Your task to perform on an android device: What's the weather today? Image 0: 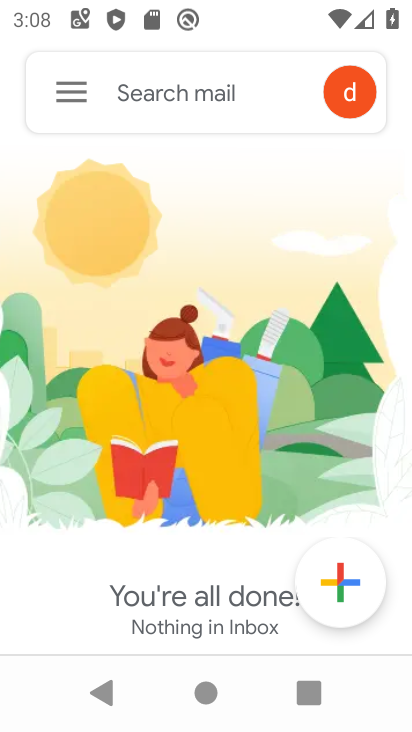
Step 0: press home button
Your task to perform on an android device: What's the weather today? Image 1: 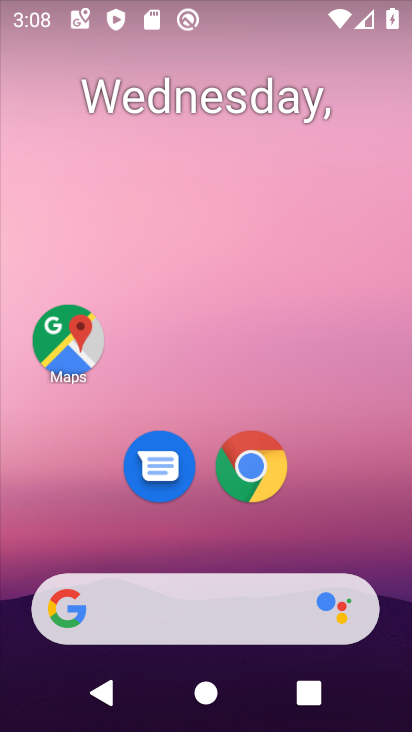
Step 1: click (215, 601)
Your task to perform on an android device: What's the weather today? Image 2: 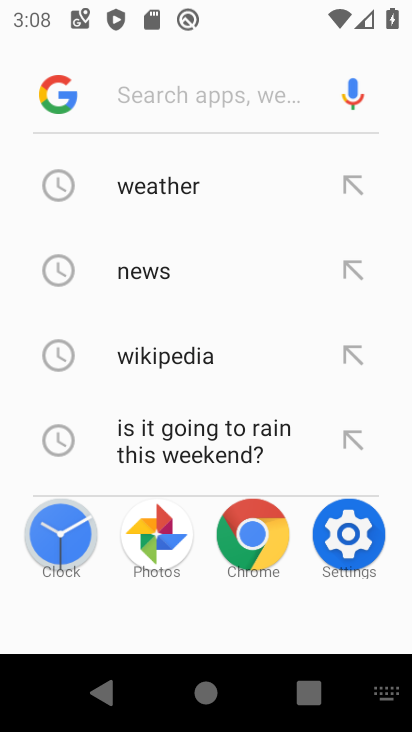
Step 2: click (143, 178)
Your task to perform on an android device: What's the weather today? Image 3: 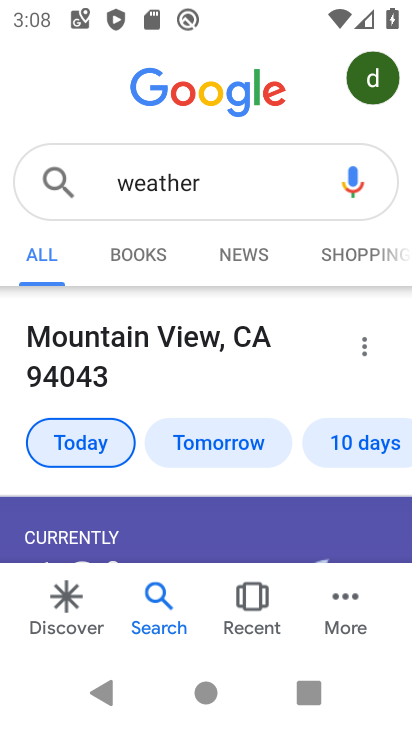
Step 3: click (107, 451)
Your task to perform on an android device: What's the weather today? Image 4: 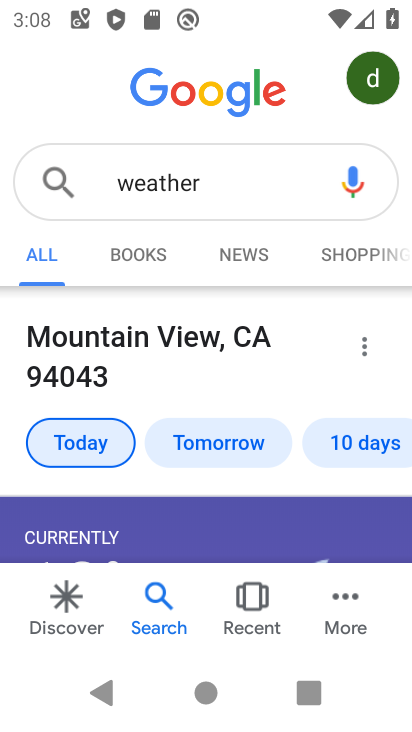
Step 4: task complete